Your task to perform on an android device: delete browsing data in the chrome app Image 0: 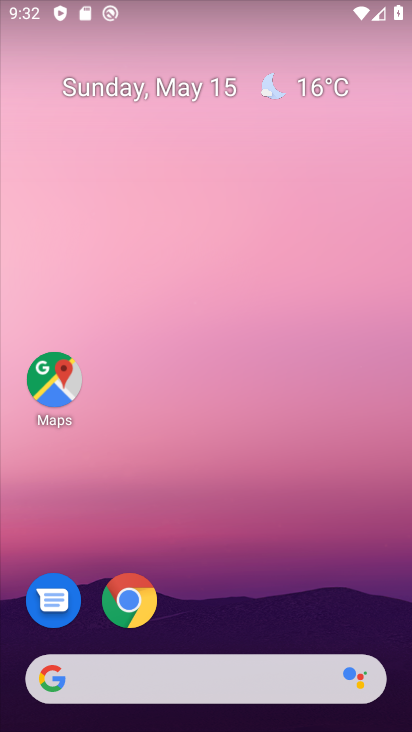
Step 0: drag from (228, 652) to (218, 72)
Your task to perform on an android device: delete browsing data in the chrome app Image 1: 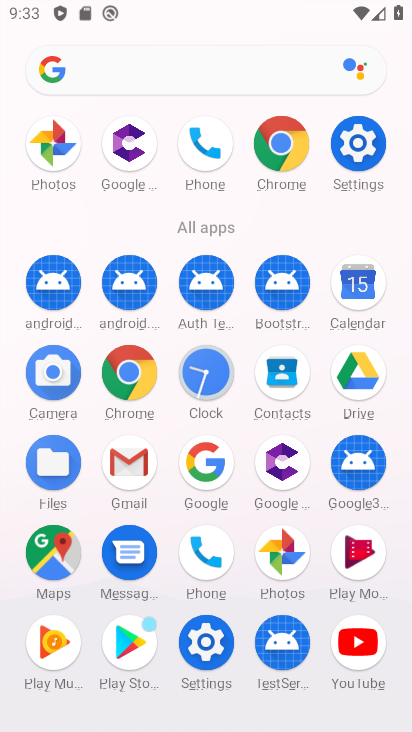
Step 1: click (275, 136)
Your task to perform on an android device: delete browsing data in the chrome app Image 2: 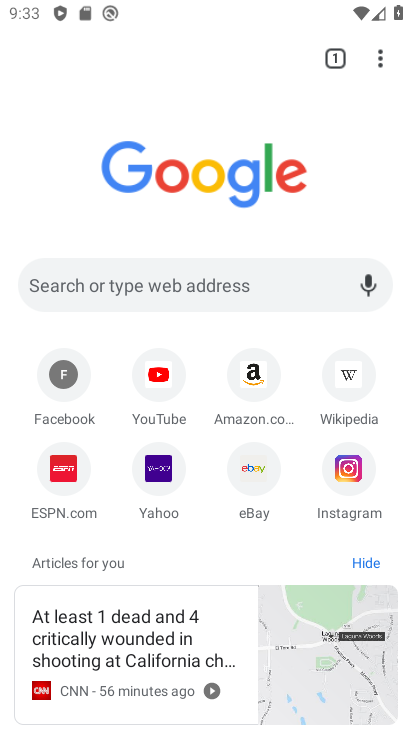
Step 2: click (369, 61)
Your task to perform on an android device: delete browsing data in the chrome app Image 3: 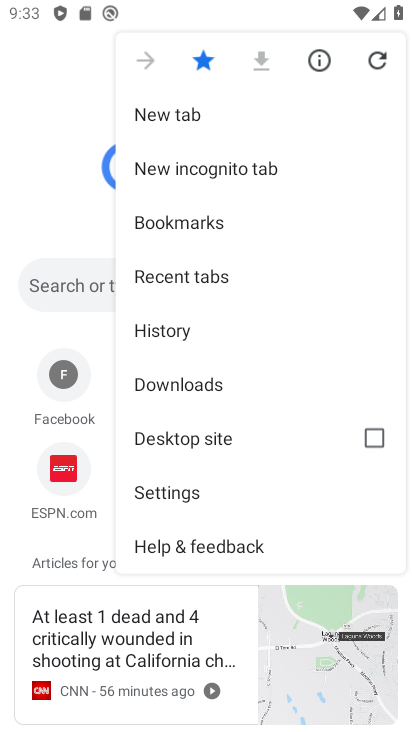
Step 3: click (176, 337)
Your task to perform on an android device: delete browsing data in the chrome app Image 4: 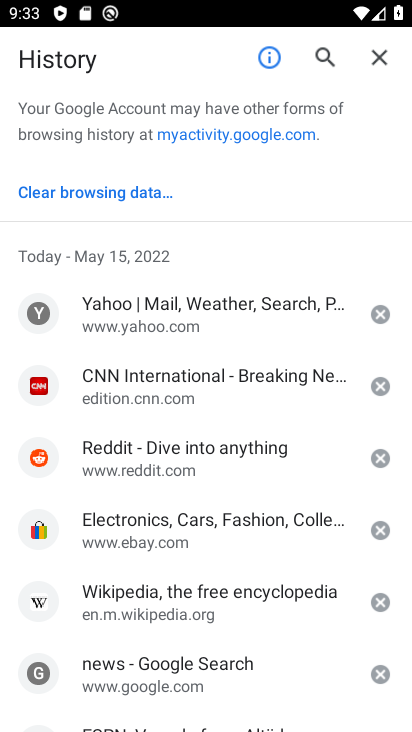
Step 4: click (122, 115)
Your task to perform on an android device: delete browsing data in the chrome app Image 5: 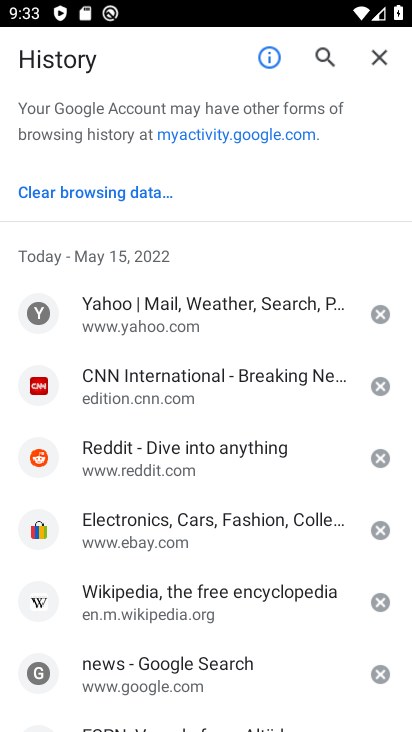
Step 5: click (97, 192)
Your task to perform on an android device: delete browsing data in the chrome app Image 6: 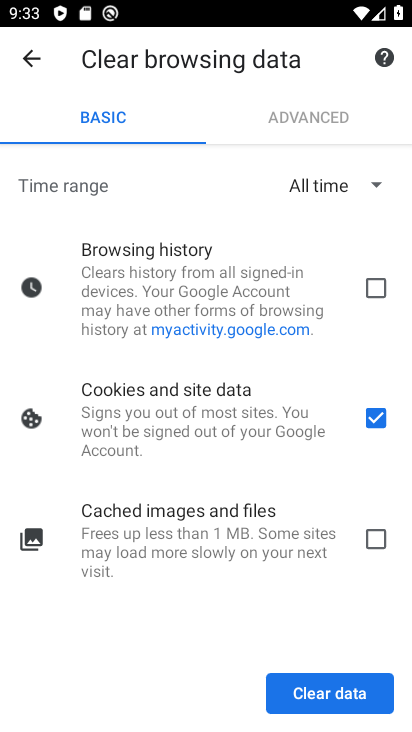
Step 6: click (352, 676)
Your task to perform on an android device: delete browsing data in the chrome app Image 7: 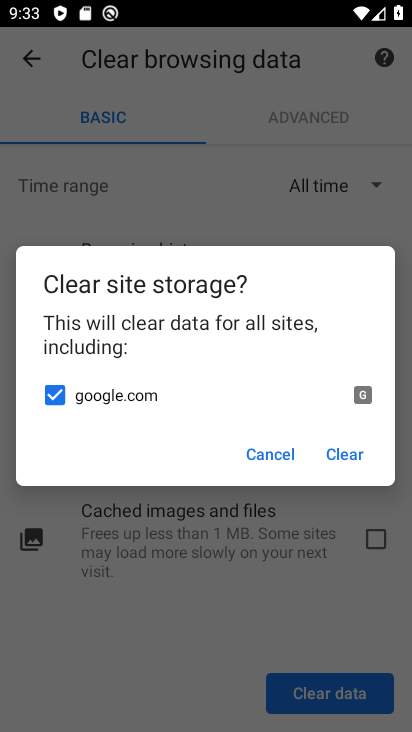
Step 7: click (329, 447)
Your task to perform on an android device: delete browsing data in the chrome app Image 8: 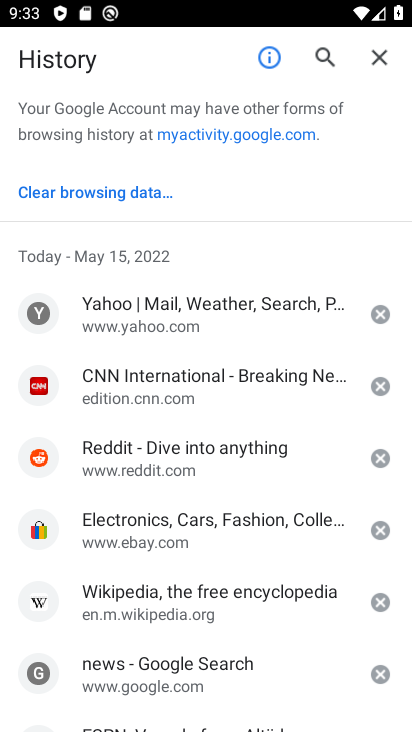
Step 8: click (108, 195)
Your task to perform on an android device: delete browsing data in the chrome app Image 9: 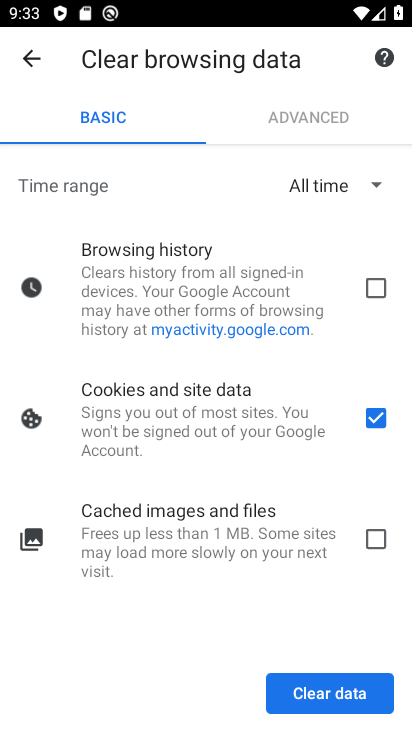
Step 9: click (354, 678)
Your task to perform on an android device: delete browsing data in the chrome app Image 10: 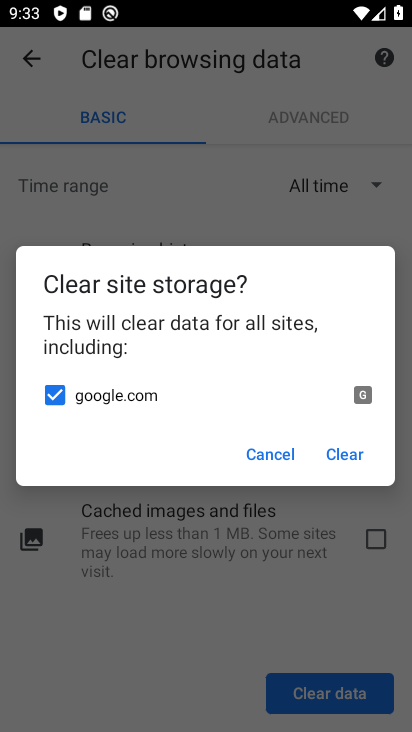
Step 10: click (353, 449)
Your task to perform on an android device: delete browsing data in the chrome app Image 11: 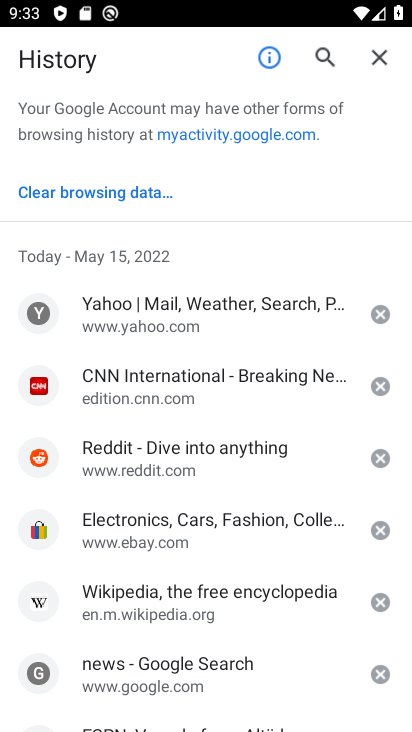
Step 11: task complete